Your task to perform on an android device: What's on my calendar today? Image 0: 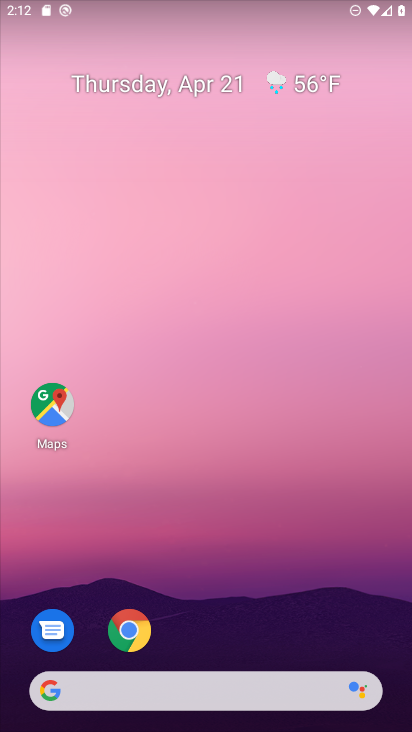
Step 0: drag from (201, 688) to (217, 42)
Your task to perform on an android device: What's on my calendar today? Image 1: 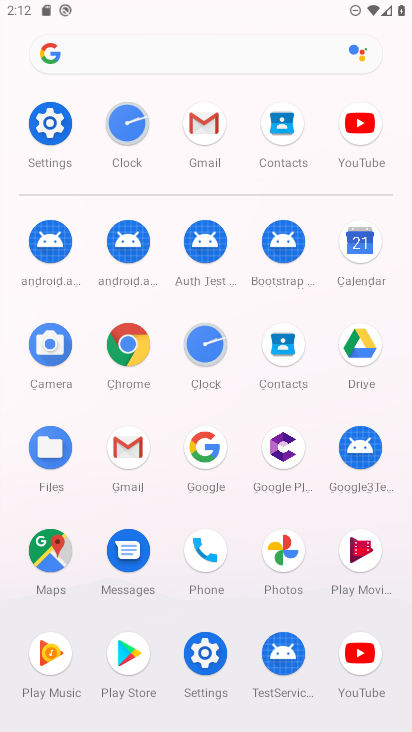
Step 1: click (366, 232)
Your task to perform on an android device: What's on my calendar today? Image 2: 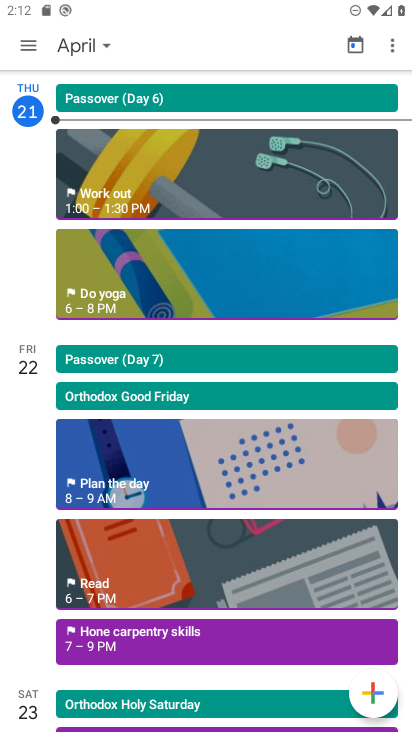
Step 2: task complete